Your task to perform on an android device: Open Chrome and go to the settings page Image 0: 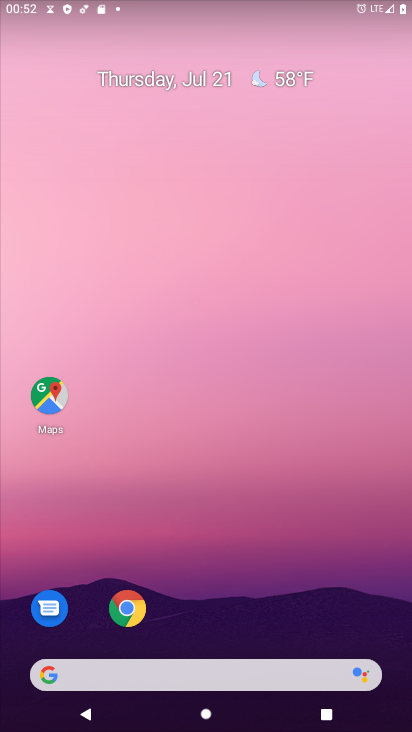
Step 0: click (123, 603)
Your task to perform on an android device: Open Chrome and go to the settings page Image 1: 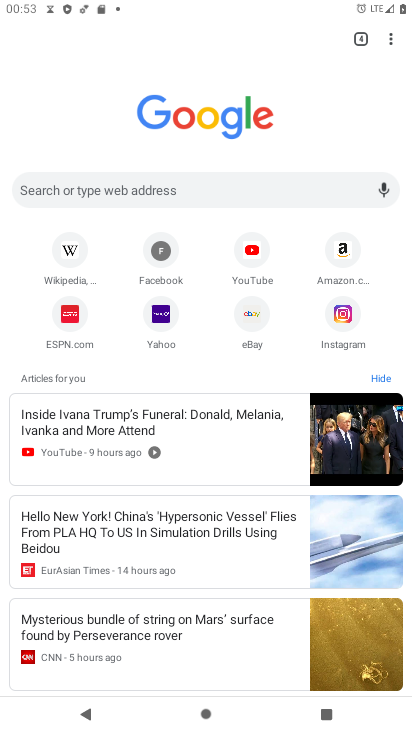
Step 1: click (392, 34)
Your task to perform on an android device: Open Chrome and go to the settings page Image 2: 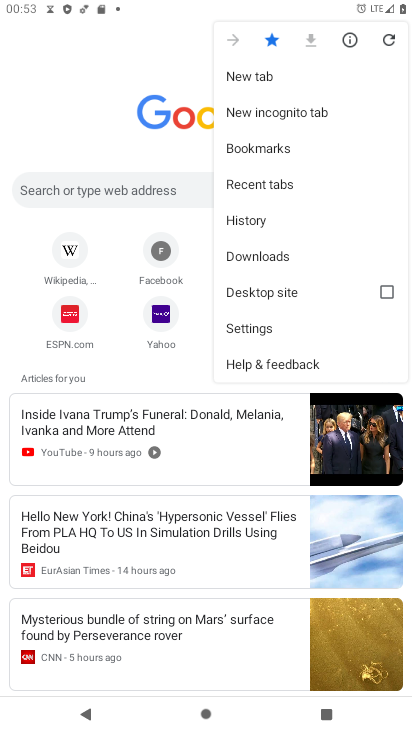
Step 2: click (277, 325)
Your task to perform on an android device: Open Chrome and go to the settings page Image 3: 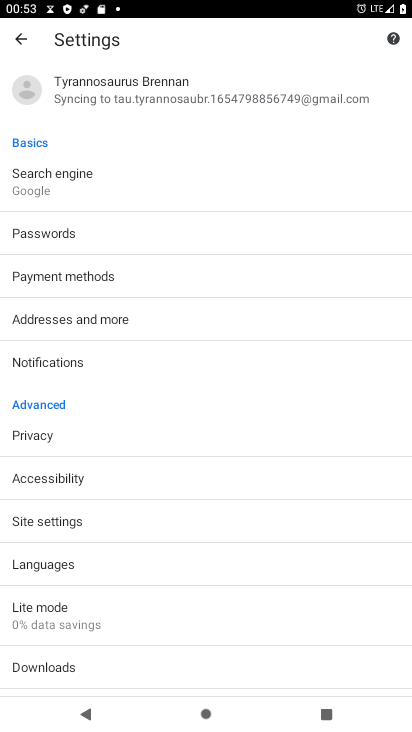
Step 3: task complete